Your task to perform on an android device: Clear the shopping cart on walmart. Search for "razer naga" on walmart, select the first entry, and add it to the cart. Image 0: 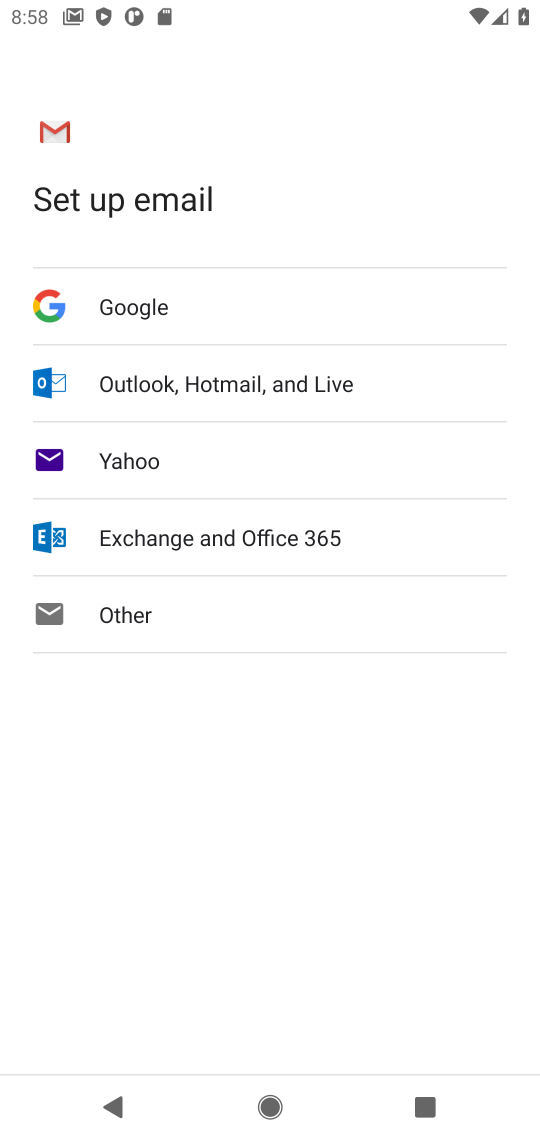
Step 0: press home button
Your task to perform on an android device: Clear the shopping cart on walmart. Search for "razer naga" on walmart, select the first entry, and add it to the cart. Image 1: 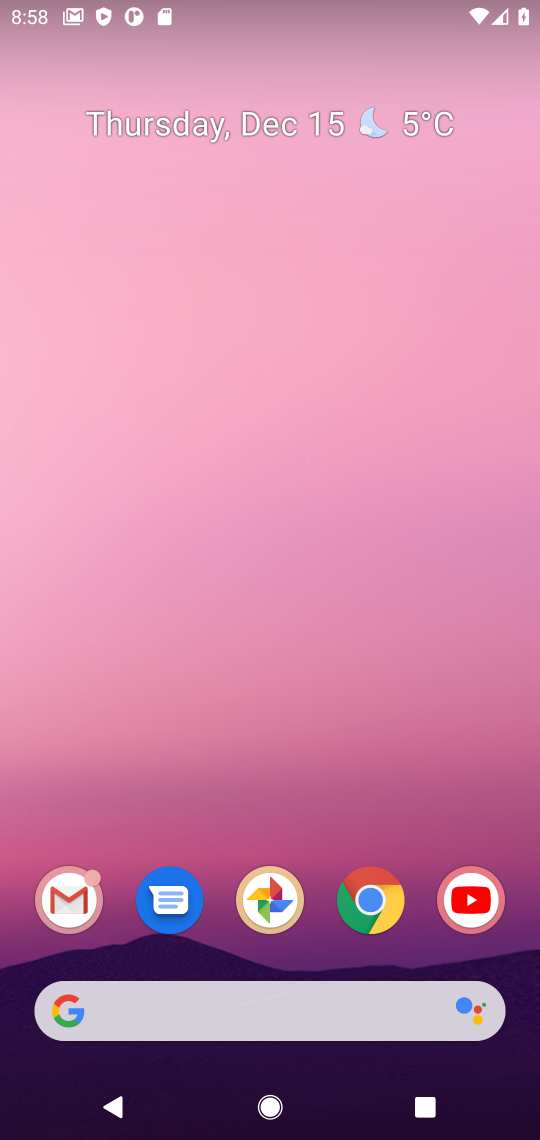
Step 1: click (383, 895)
Your task to perform on an android device: Clear the shopping cart on walmart. Search for "razer naga" on walmart, select the first entry, and add it to the cart. Image 2: 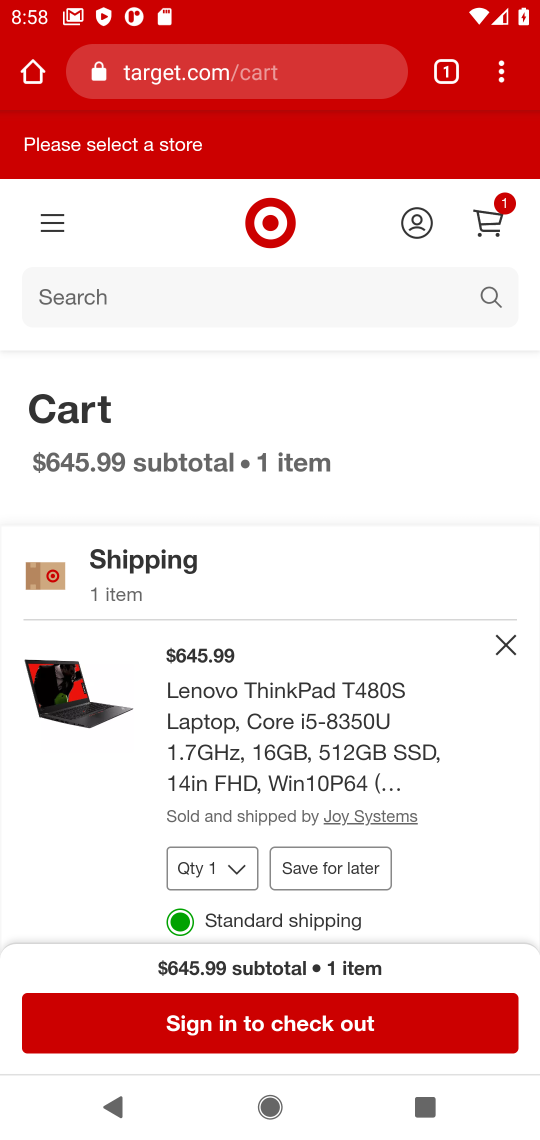
Step 2: click (212, 79)
Your task to perform on an android device: Clear the shopping cart on walmart. Search for "razer naga" on walmart, select the first entry, and add it to the cart. Image 3: 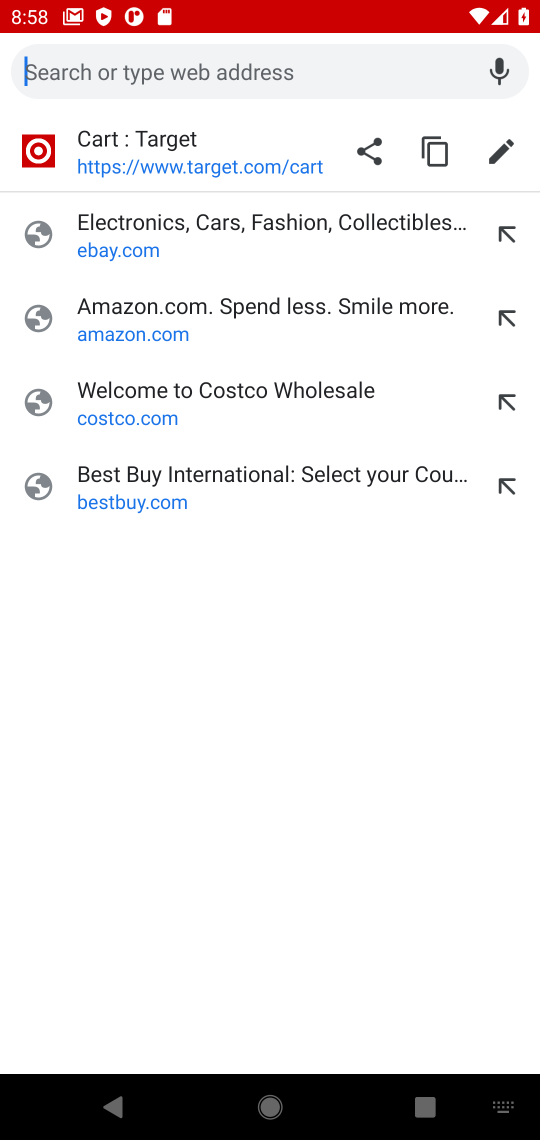
Step 3: type "walmart"
Your task to perform on an android device: Clear the shopping cart on walmart. Search for "razer naga" on walmart, select the first entry, and add it to the cart. Image 4: 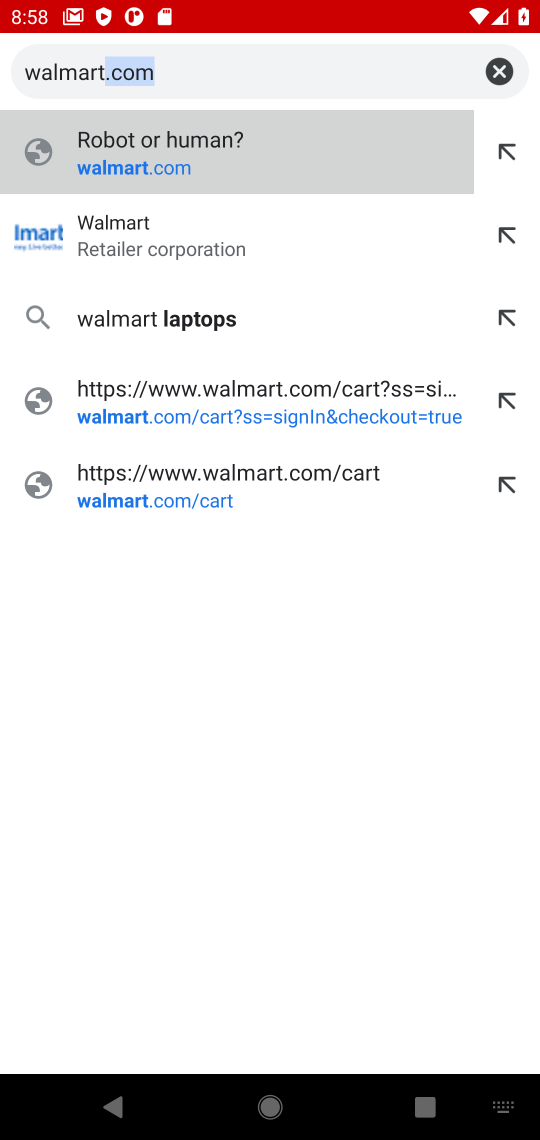
Step 4: click (139, 167)
Your task to perform on an android device: Clear the shopping cart on walmart. Search for "razer naga" on walmart, select the first entry, and add it to the cart. Image 5: 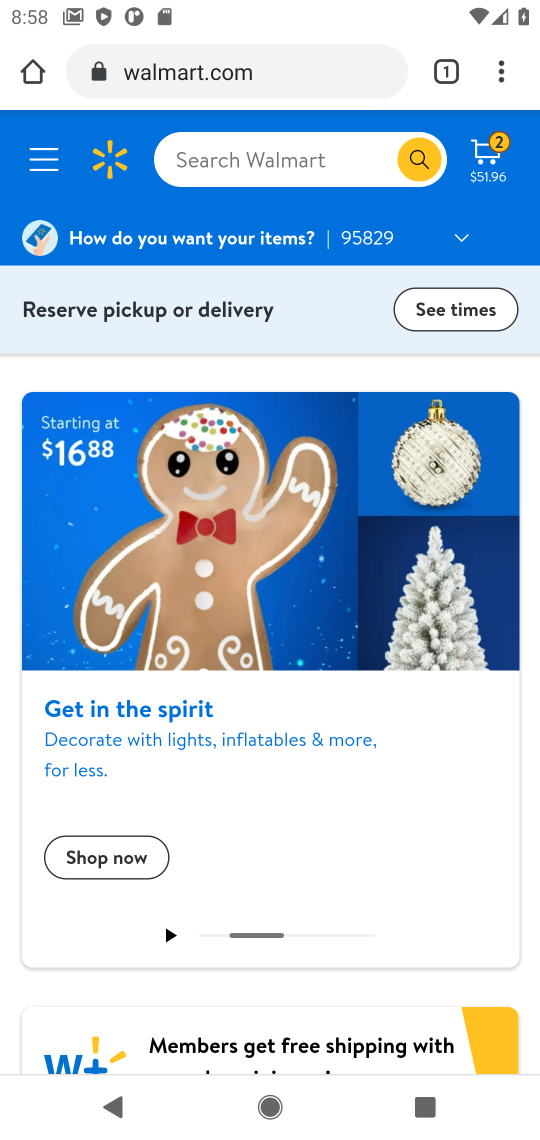
Step 5: click (489, 140)
Your task to perform on an android device: Clear the shopping cart on walmart. Search for "razer naga" on walmart, select the first entry, and add it to the cart. Image 6: 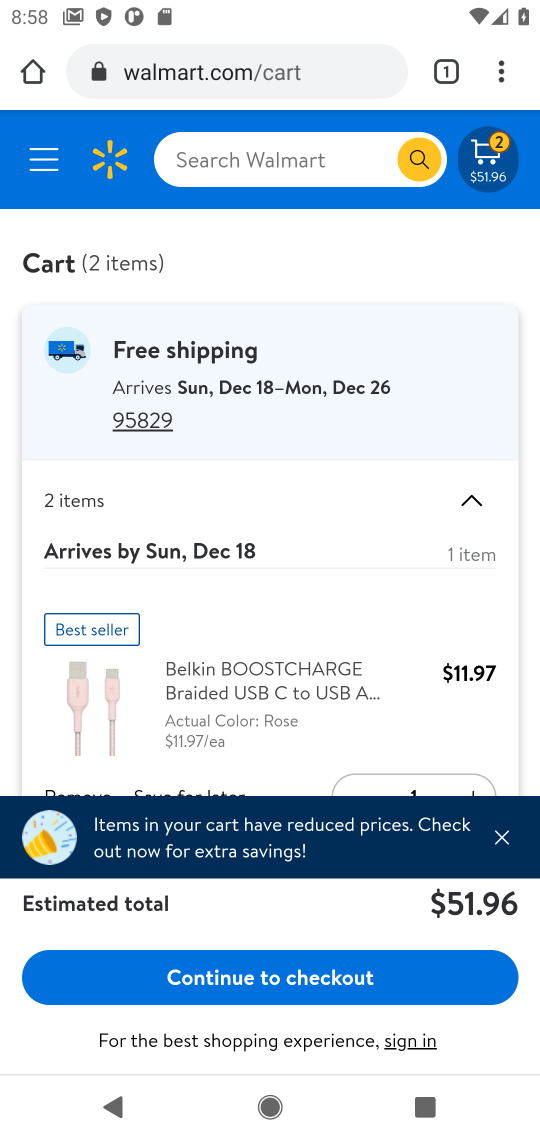
Step 6: drag from (419, 707) to (437, 305)
Your task to perform on an android device: Clear the shopping cart on walmart. Search for "razer naga" on walmart, select the first entry, and add it to the cart. Image 7: 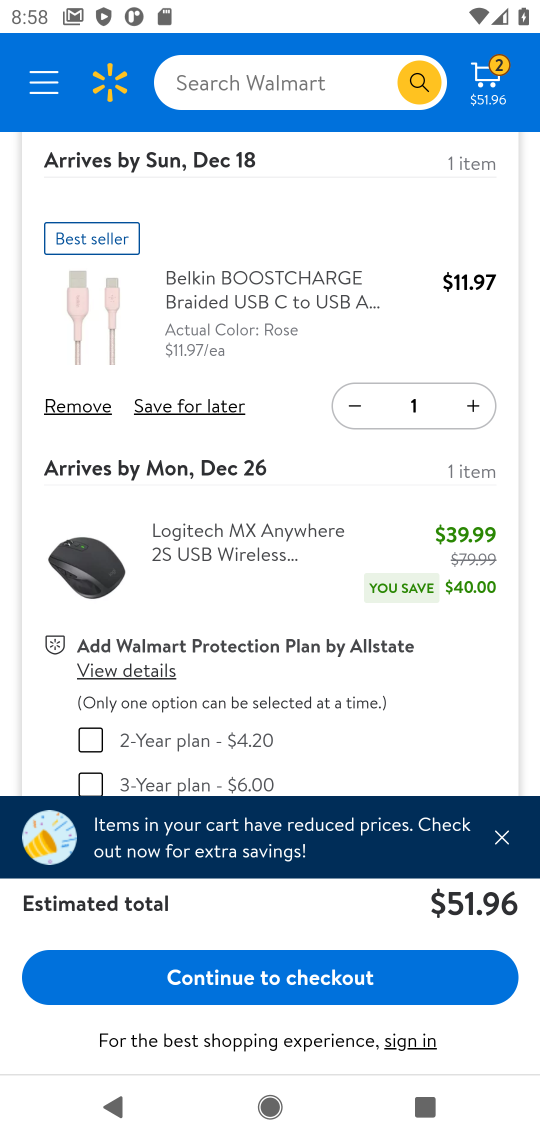
Step 7: click (360, 414)
Your task to perform on an android device: Clear the shopping cart on walmart. Search for "razer naga" on walmart, select the first entry, and add it to the cart. Image 8: 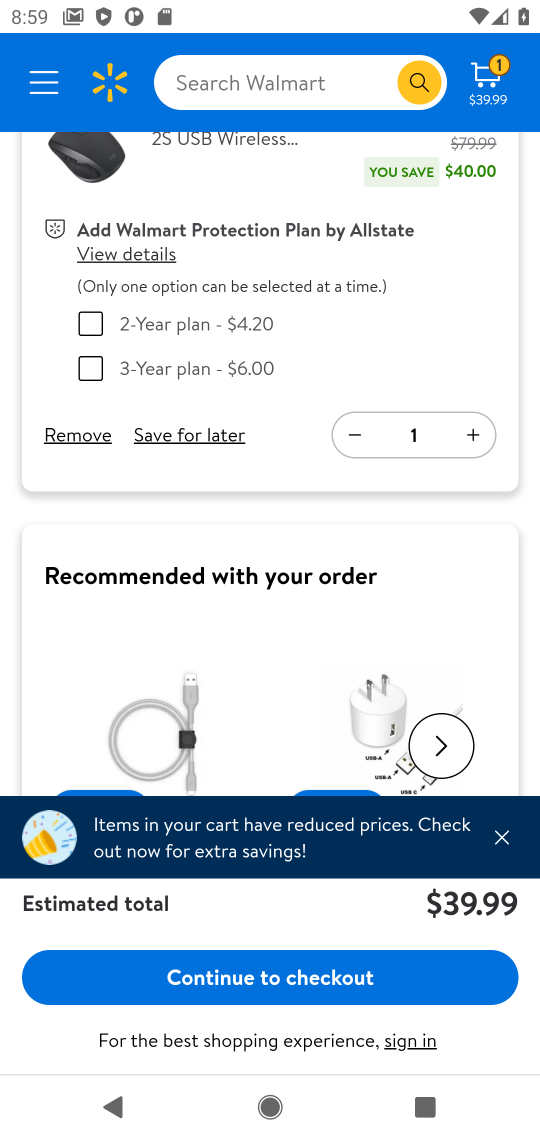
Step 8: click (78, 437)
Your task to perform on an android device: Clear the shopping cart on walmart. Search for "razer naga" on walmart, select the first entry, and add it to the cart. Image 9: 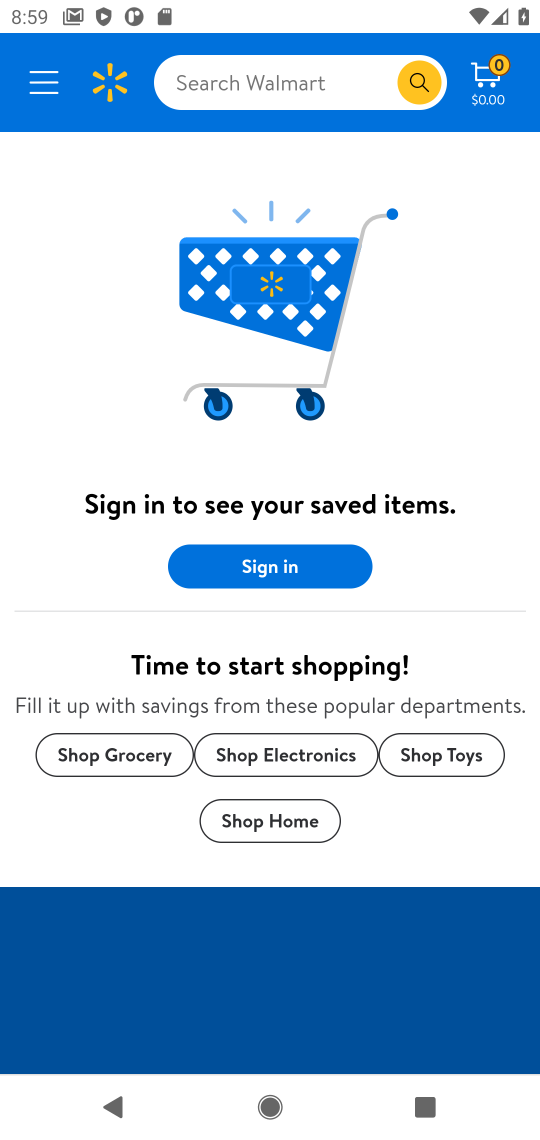
Step 9: click (273, 96)
Your task to perform on an android device: Clear the shopping cart on walmart. Search for "razer naga" on walmart, select the first entry, and add it to the cart. Image 10: 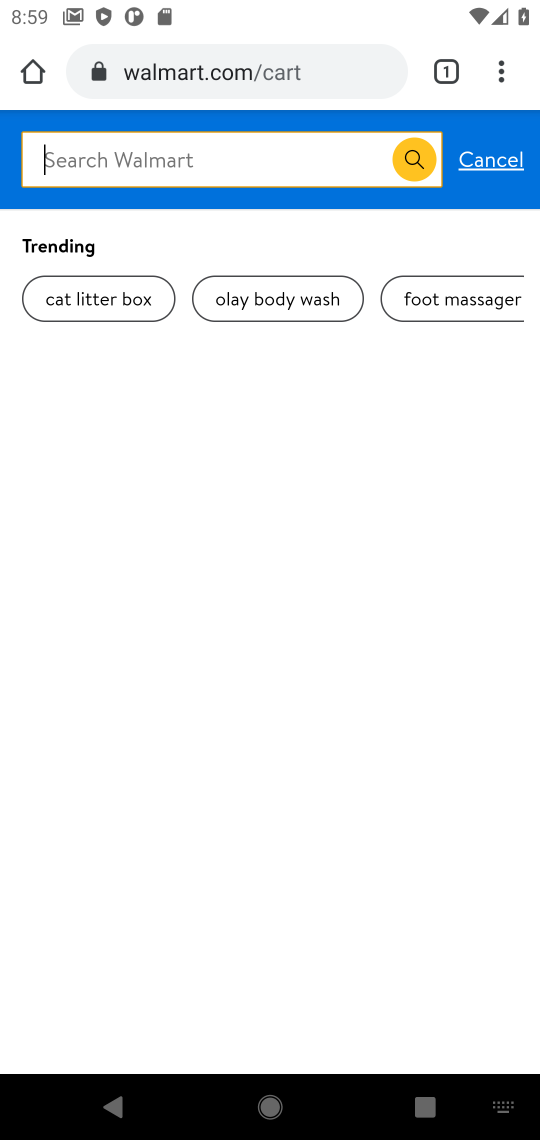
Step 10: type "razer naga"
Your task to perform on an android device: Clear the shopping cart on walmart. Search for "razer naga" on walmart, select the first entry, and add it to the cart. Image 11: 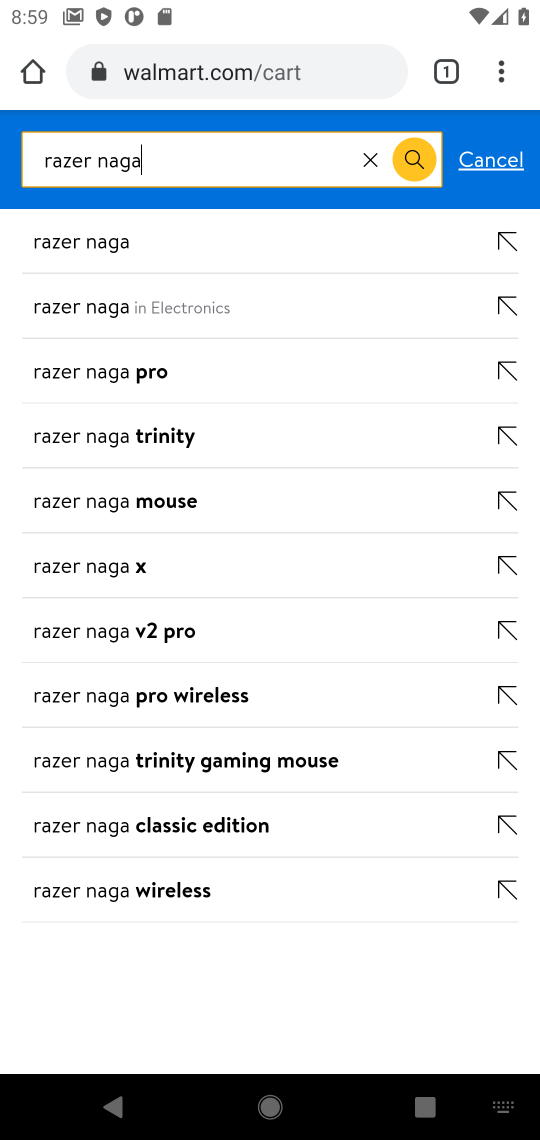
Step 11: press enter
Your task to perform on an android device: Clear the shopping cart on walmart. Search for "razer naga" on walmart, select the first entry, and add it to the cart. Image 12: 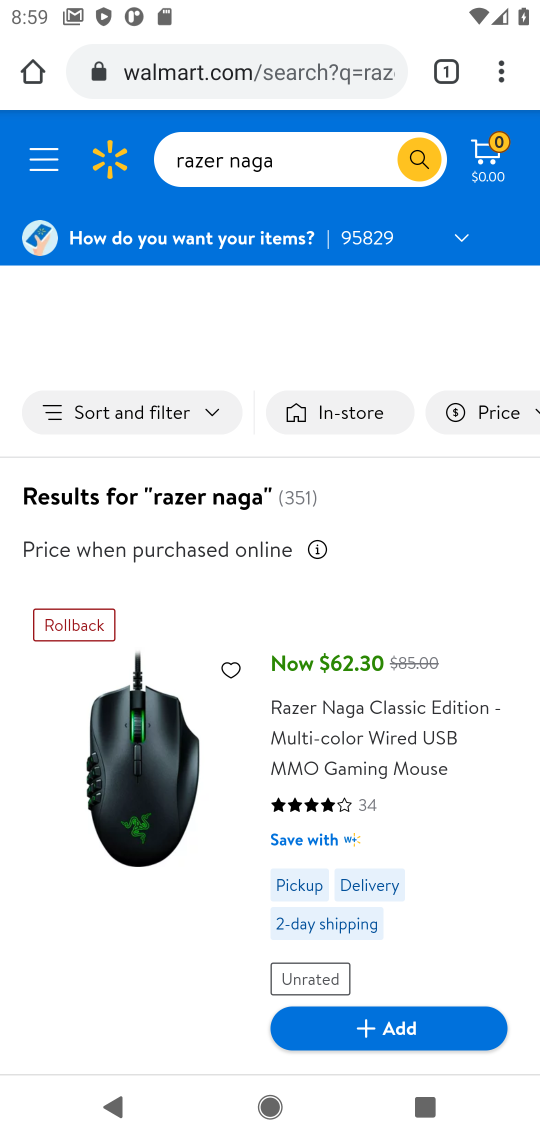
Step 12: drag from (269, 647) to (259, 409)
Your task to perform on an android device: Clear the shopping cart on walmart. Search for "razer naga" on walmart, select the first entry, and add it to the cart. Image 13: 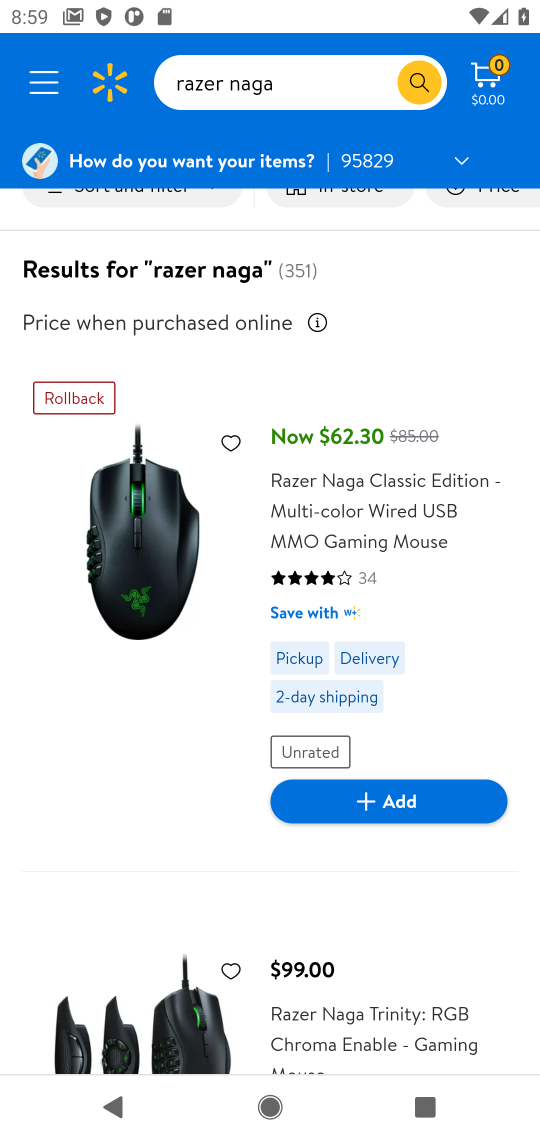
Step 13: click (386, 809)
Your task to perform on an android device: Clear the shopping cart on walmart. Search for "razer naga" on walmart, select the first entry, and add it to the cart. Image 14: 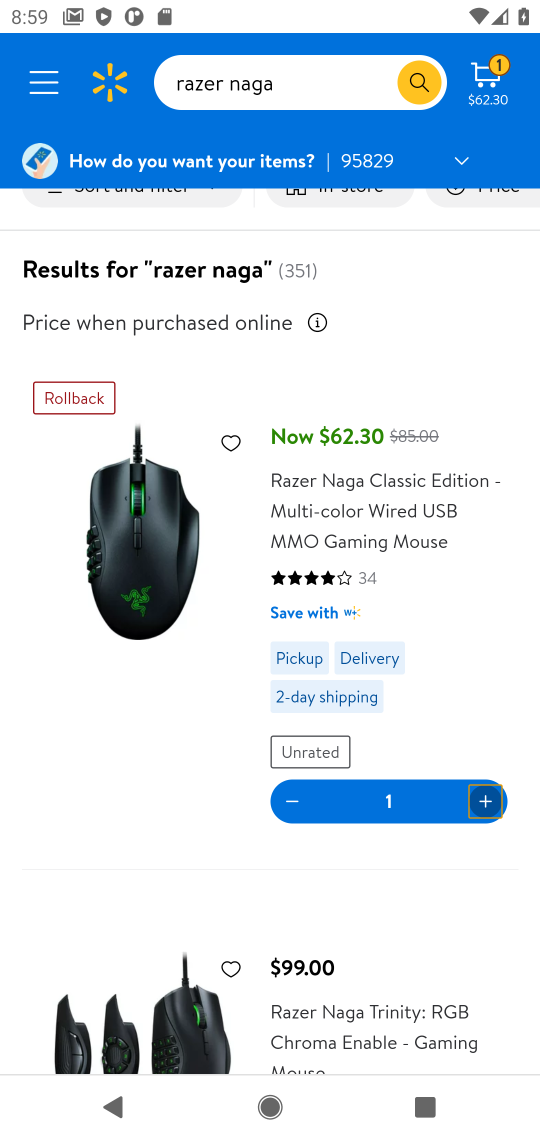
Step 14: click (505, 93)
Your task to perform on an android device: Clear the shopping cart on walmart. Search for "razer naga" on walmart, select the first entry, and add it to the cart. Image 15: 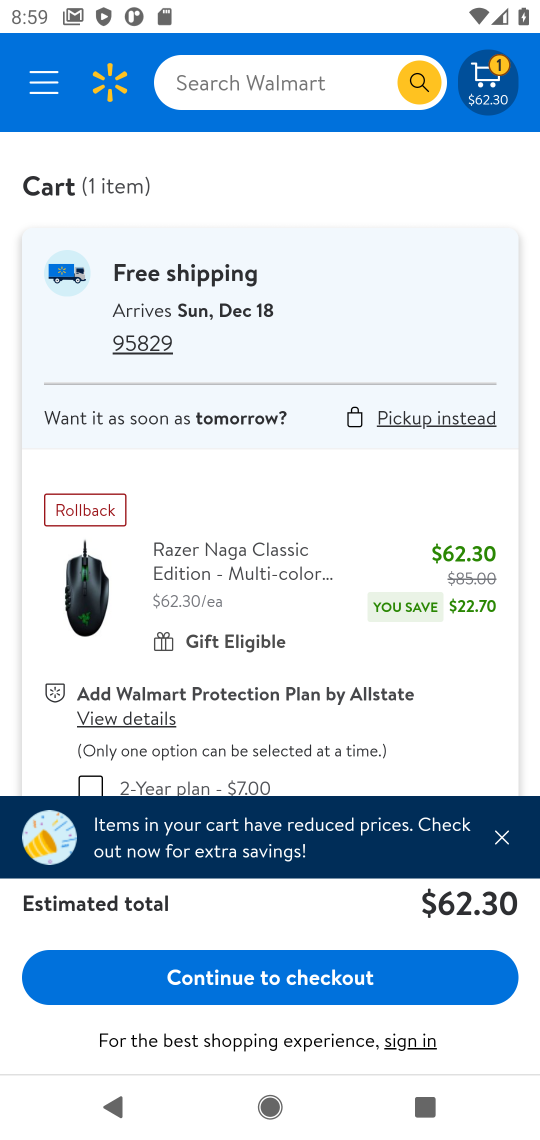
Step 15: task complete